Your task to perform on an android device: Go to settings Image 0: 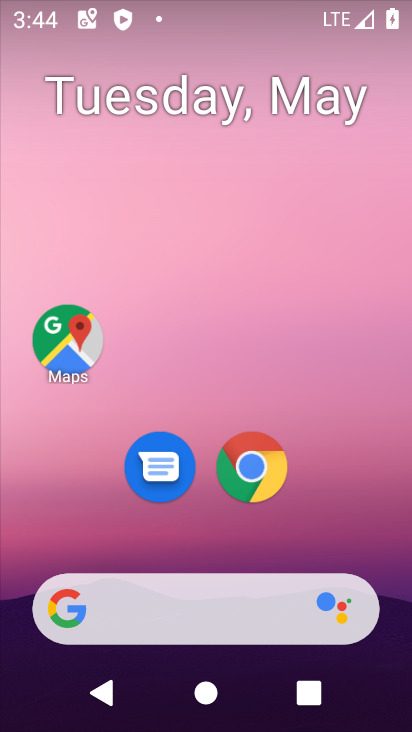
Step 0: press home button
Your task to perform on an android device: Go to settings Image 1: 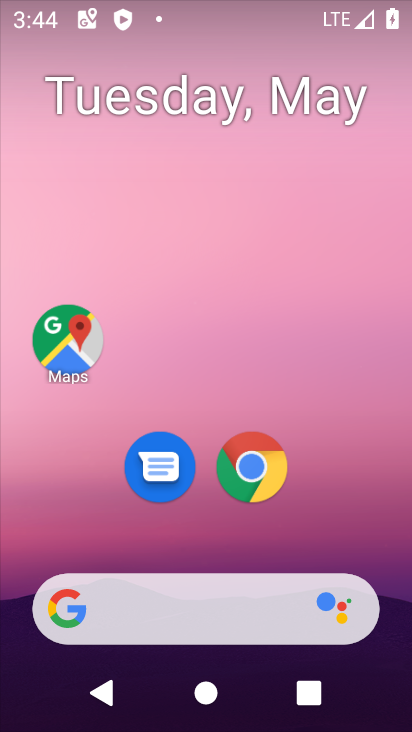
Step 1: drag from (330, 503) to (351, 78)
Your task to perform on an android device: Go to settings Image 2: 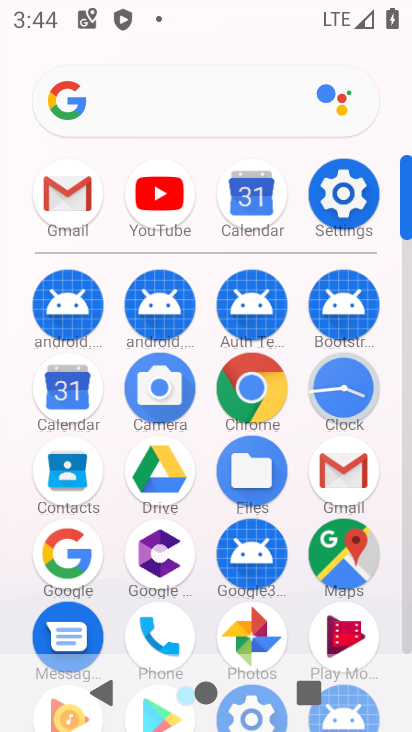
Step 2: click (344, 190)
Your task to perform on an android device: Go to settings Image 3: 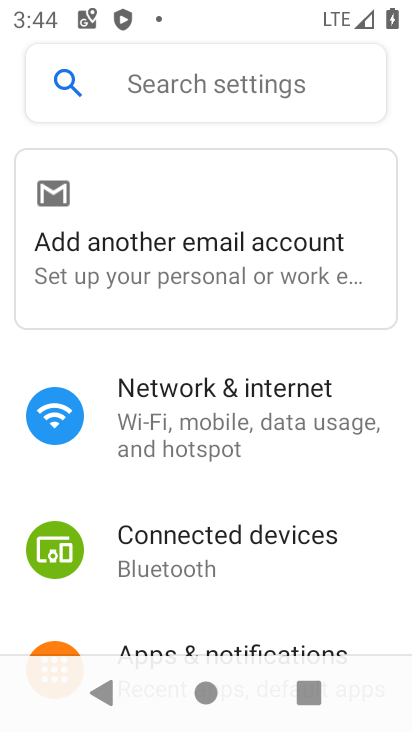
Step 3: task complete